Your task to perform on an android device: Open Google Chrome Image 0: 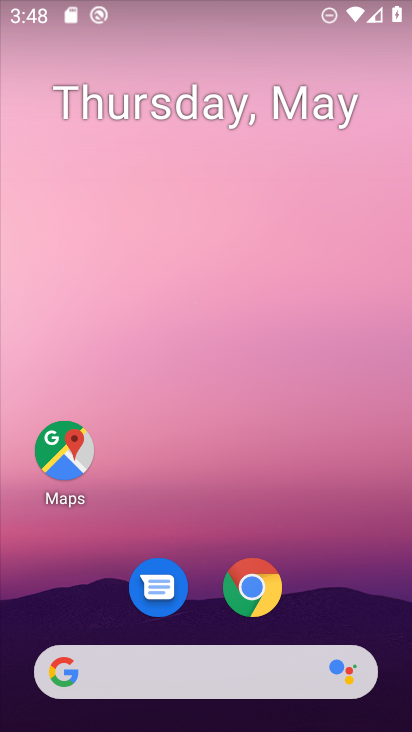
Step 0: drag from (373, 621) to (369, 303)
Your task to perform on an android device: Open Google Chrome Image 1: 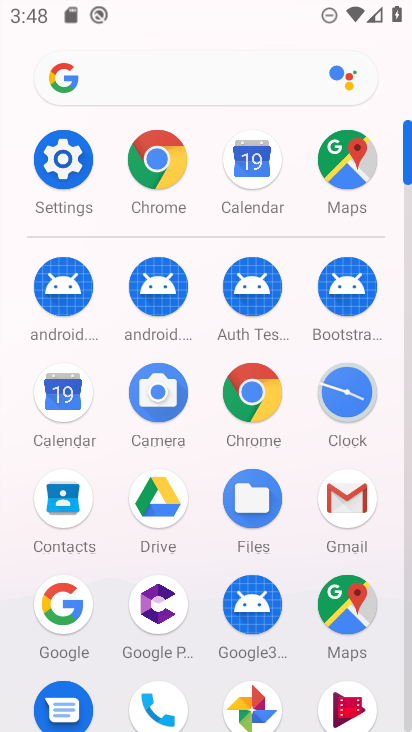
Step 1: click (275, 412)
Your task to perform on an android device: Open Google Chrome Image 2: 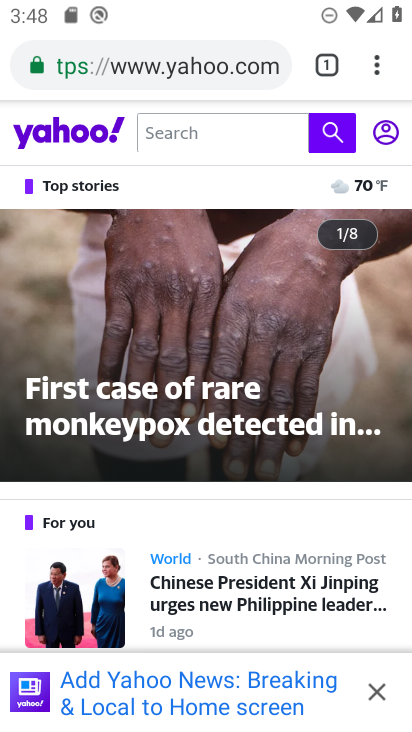
Step 2: task complete